Your task to perform on an android device: visit the assistant section in the google photos Image 0: 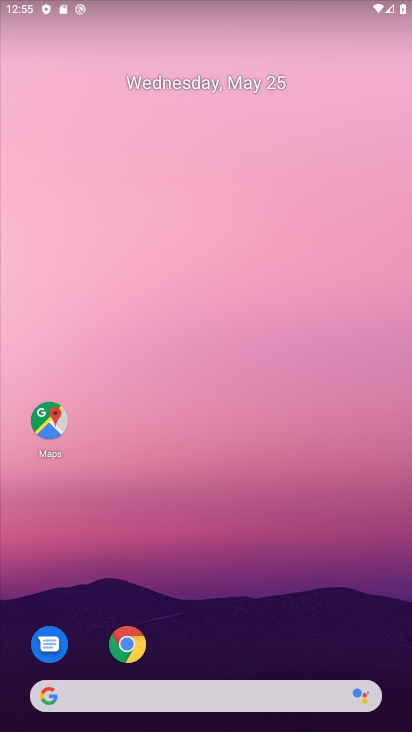
Step 0: drag from (244, 647) to (116, 53)
Your task to perform on an android device: visit the assistant section in the google photos Image 1: 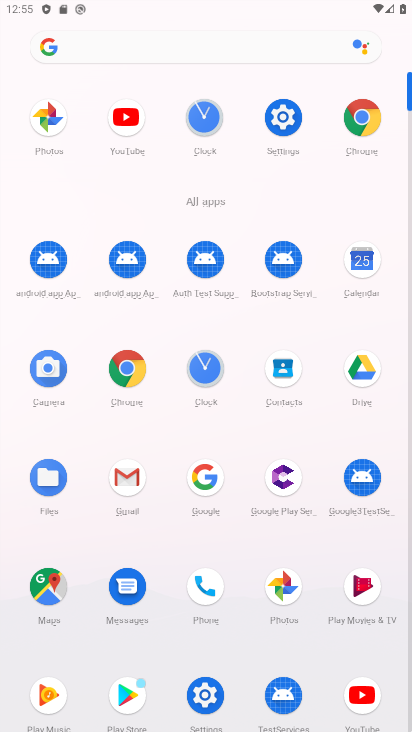
Step 1: click (272, 615)
Your task to perform on an android device: visit the assistant section in the google photos Image 2: 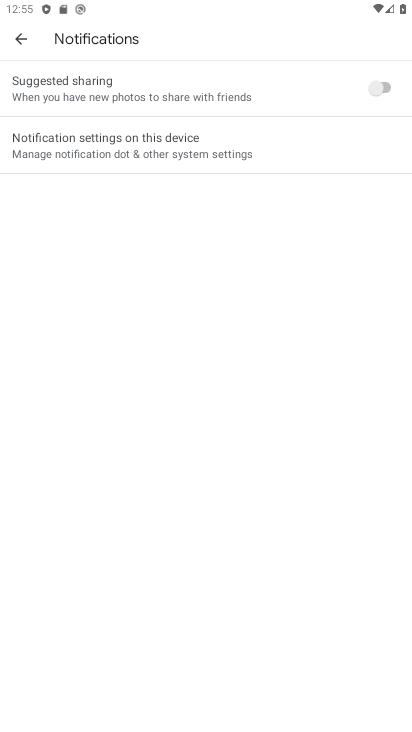
Step 2: click (27, 37)
Your task to perform on an android device: visit the assistant section in the google photos Image 3: 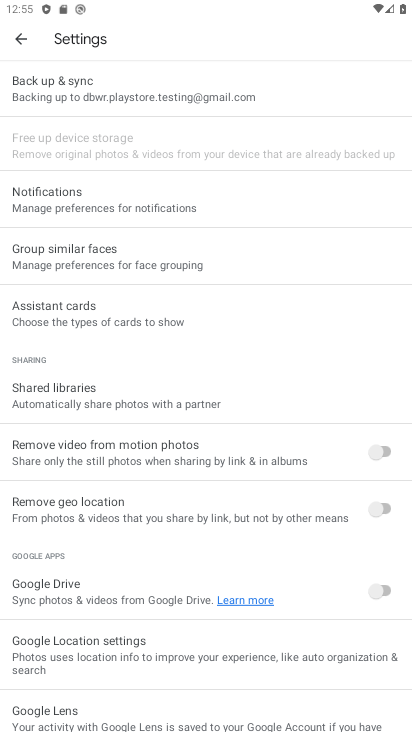
Step 3: click (22, 37)
Your task to perform on an android device: visit the assistant section in the google photos Image 4: 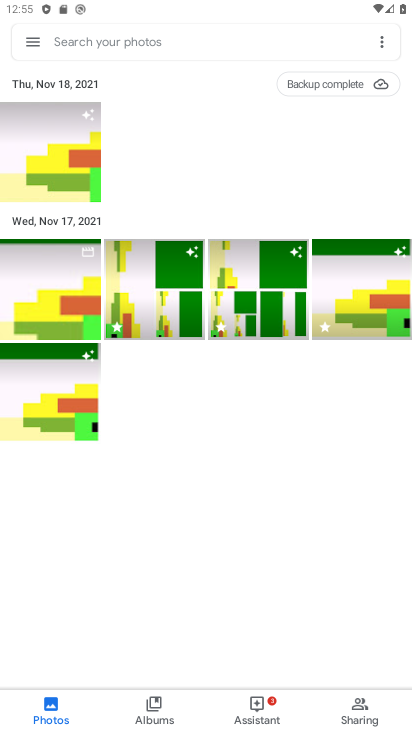
Step 4: click (31, 41)
Your task to perform on an android device: visit the assistant section in the google photos Image 5: 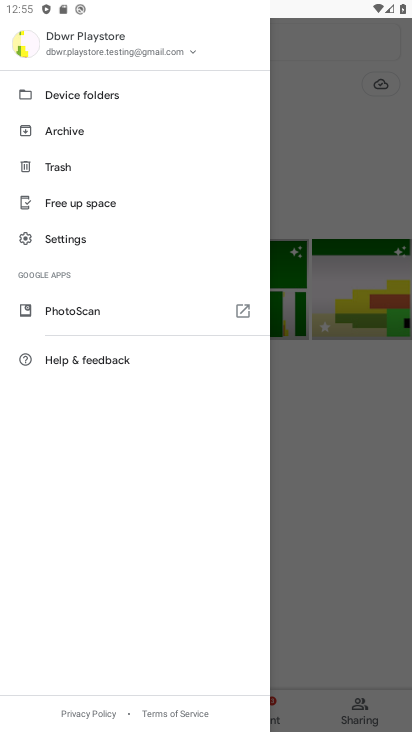
Step 5: click (80, 244)
Your task to perform on an android device: visit the assistant section in the google photos Image 6: 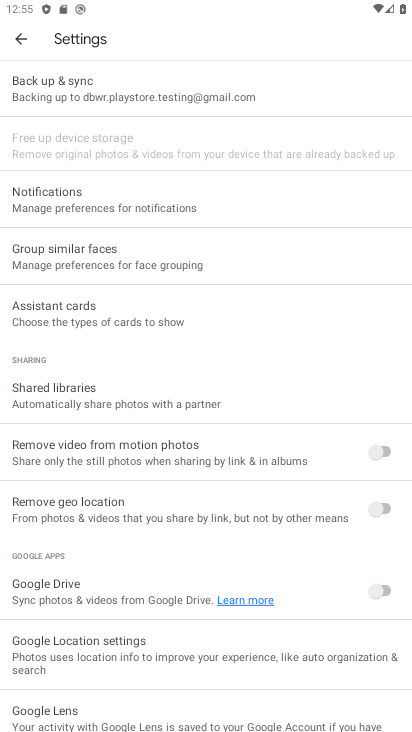
Step 6: click (23, 24)
Your task to perform on an android device: visit the assistant section in the google photos Image 7: 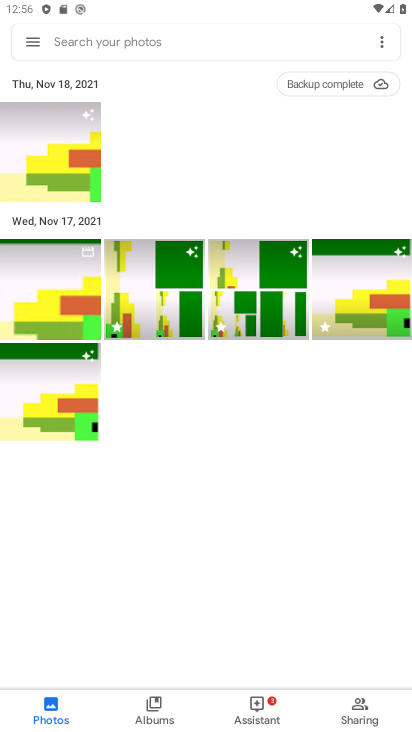
Step 7: click (261, 711)
Your task to perform on an android device: visit the assistant section in the google photos Image 8: 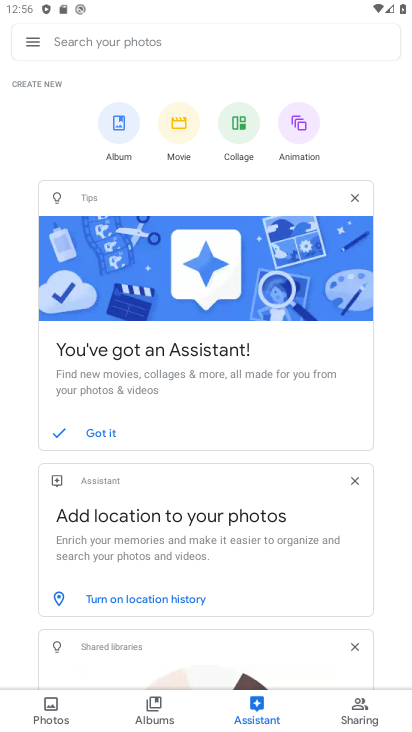
Step 8: task complete